Your task to perform on an android device: find photos in the google photos app Image 0: 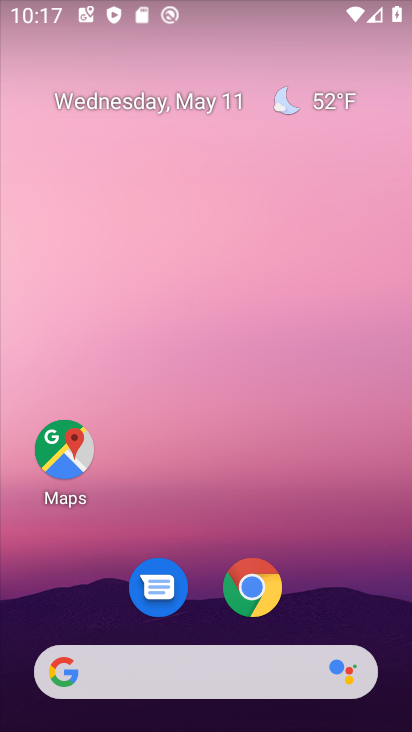
Step 0: drag from (289, 717) to (234, 317)
Your task to perform on an android device: find photos in the google photos app Image 1: 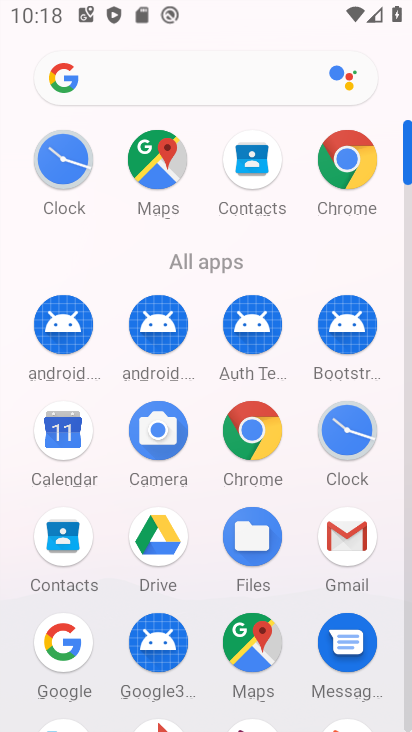
Step 1: drag from (195, 495) to (163, 327)
Your task to perform on an android device: find photos in the google photos app Image 2: 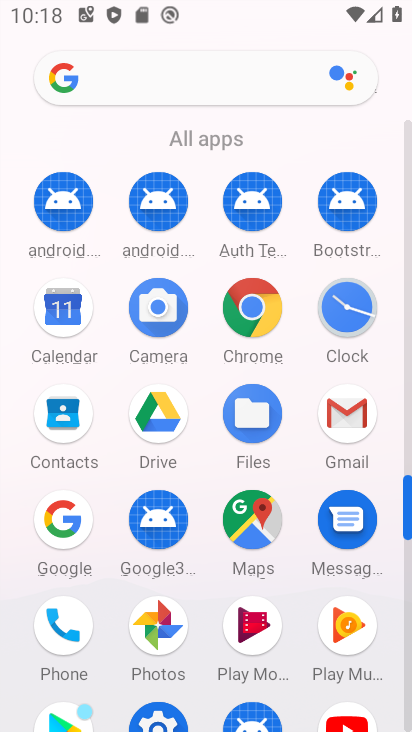
Step 2: click (172, 612)
Your task to perform on an android device: find photos in the google photos app Image 3: 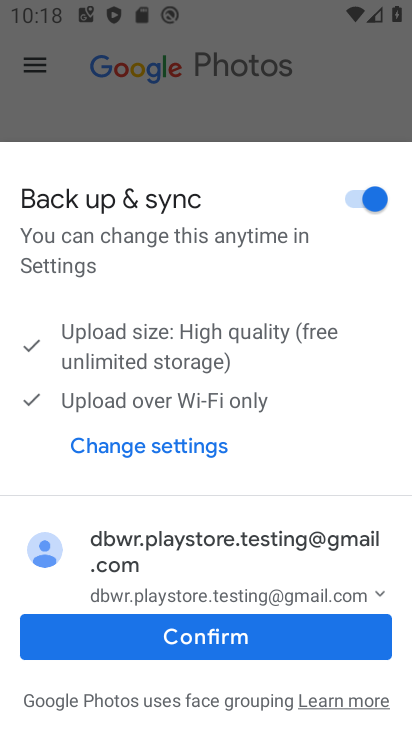
Step 3: click (161, 607)
Your task to perform on an android device: find photos in the google photos app Image 4: 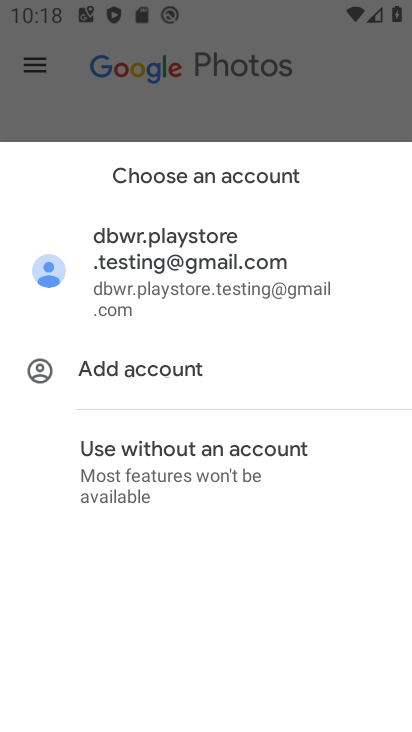
Step 4: click (170, 262)
Your task to perform on an android device: find photos in the google photos app Image 5: 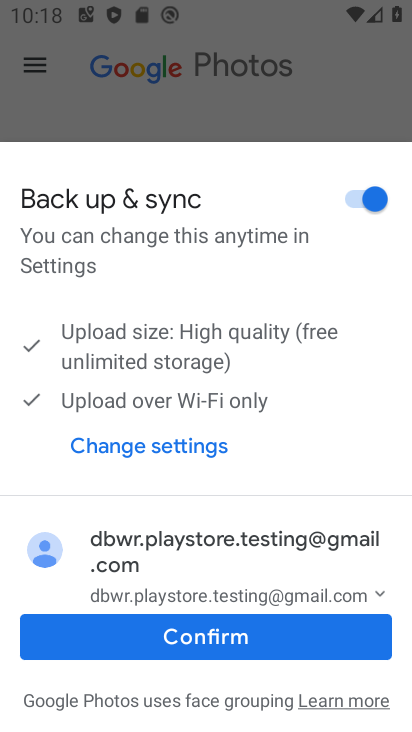
Step 5: click (196, 641)
Your task to perform on an android device: find photos in the google photos app Image 6: 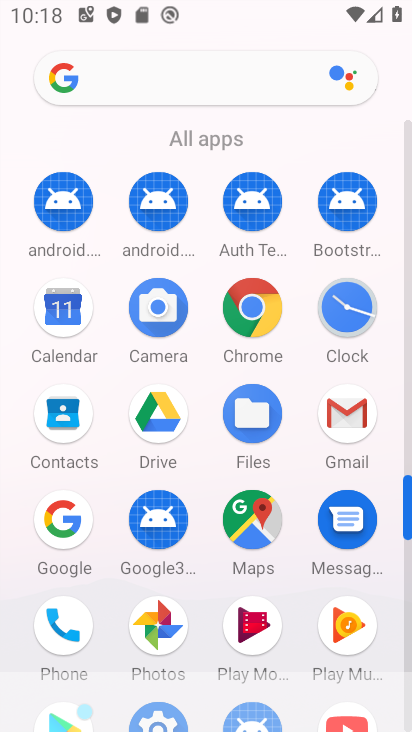
Step 6: task complete